Your task to perform on an android device: Go to Maps Image 0: 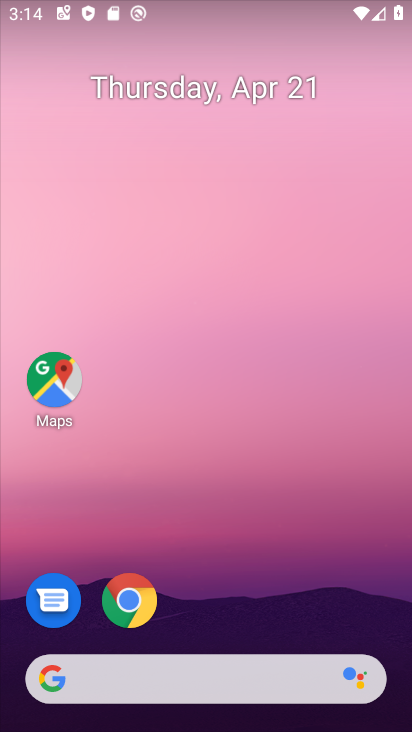
Step 0: click (56, 381)
Your task to perform on an android device: Go to Maps Image 1: 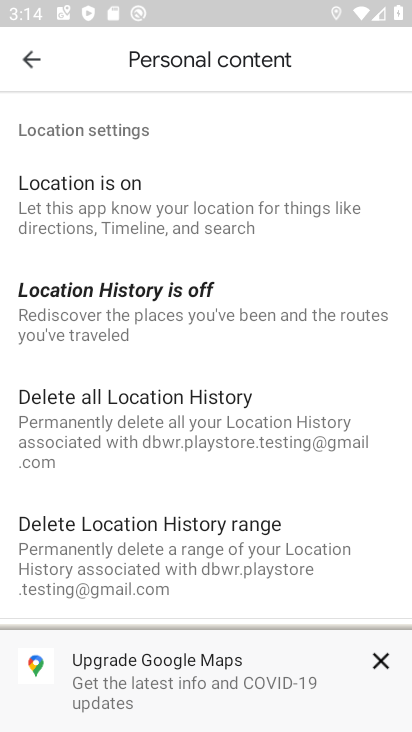
Step 1: press back button
Your task to perform on an android device: Go to Maps Image 2: 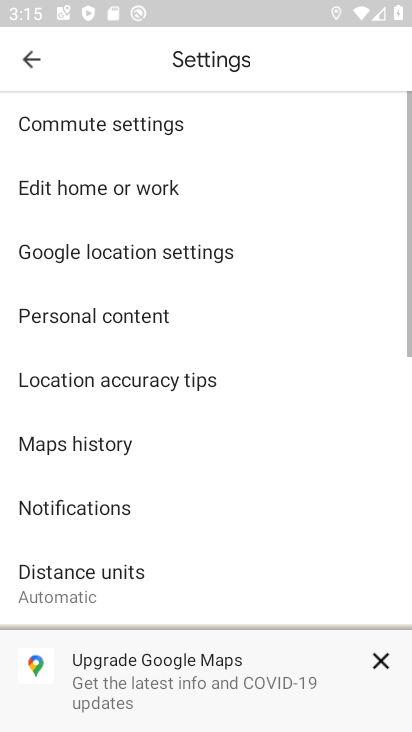
Step 2: press back button
Your task to perform on an android device: Go to Maps Image 3: 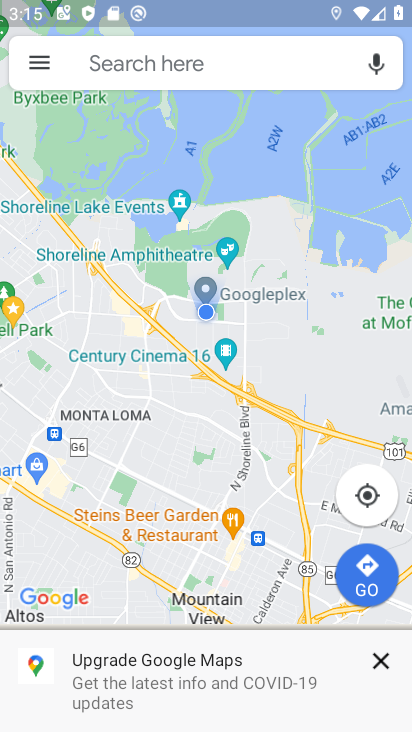
Step 3: click (381, 659)
Your task to perform on an android device: Go to Maps Image 4: 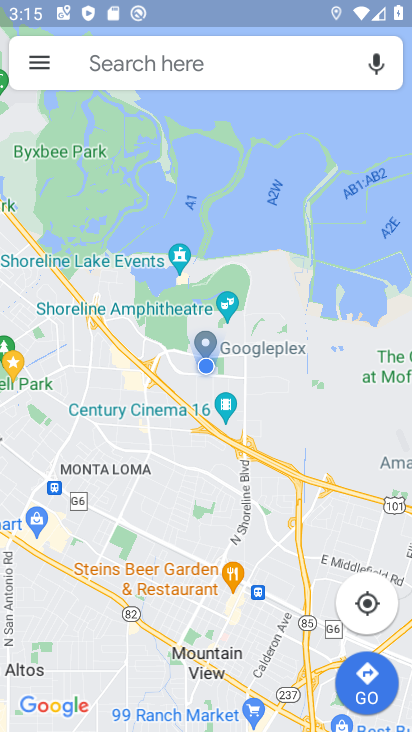
Step 4: task complete